Your task to perform on an android device: Go to Android settings Image 0: 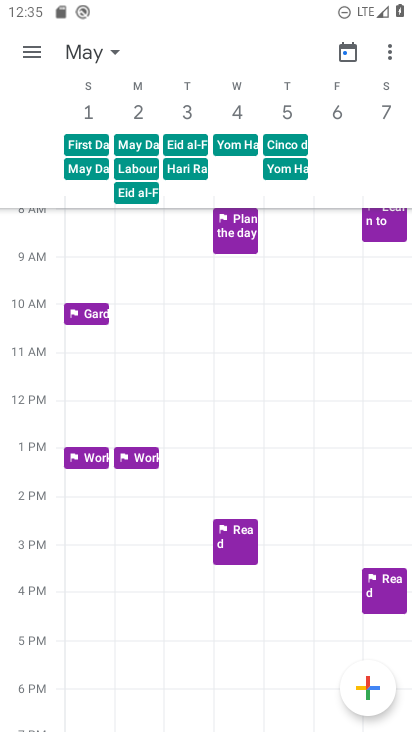
Step 0: press home button
Your task to perform on an android device: Go to Android settings Image 1: 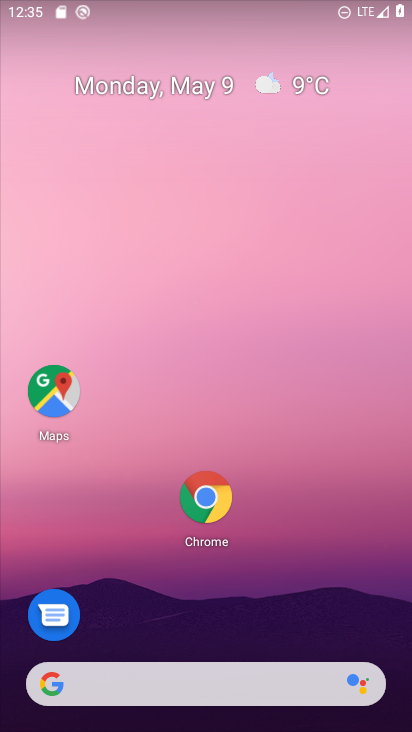
Step 1: drag from (246, 582) to (212, 88)
Your task to perform on an android device: Go to Android settings Image 2: 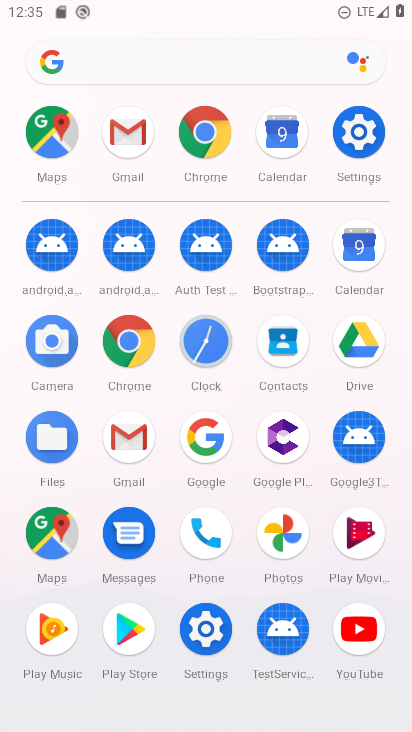
Step 2: click (207, 637)
Your task to perform on an android device: Go to Android settings Image 3: 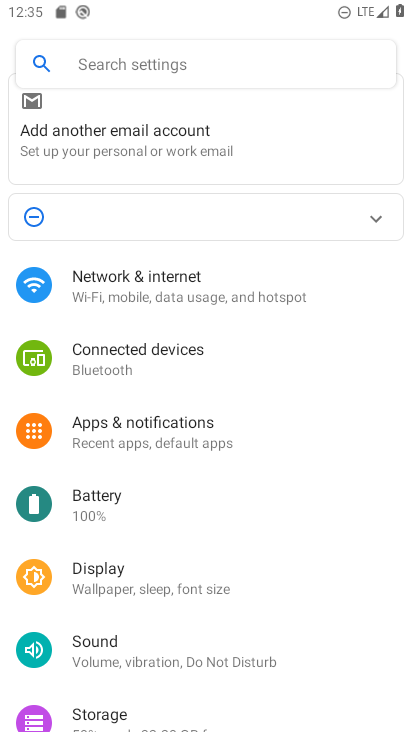
Step 3: task complete